Your task to perform on an android device: Open Google Maps and go to "Timeline" Image 0: 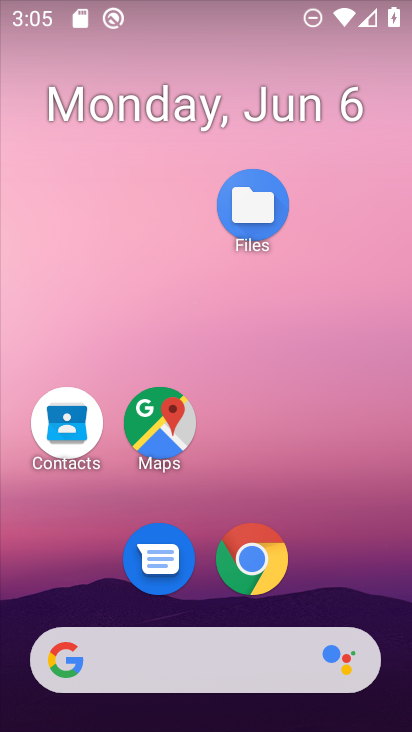
Step 0: drag from (187, 644) to (185, 54)
Your task to perform on an android device: Open Google Maps and go to "Timeline" Image 1: 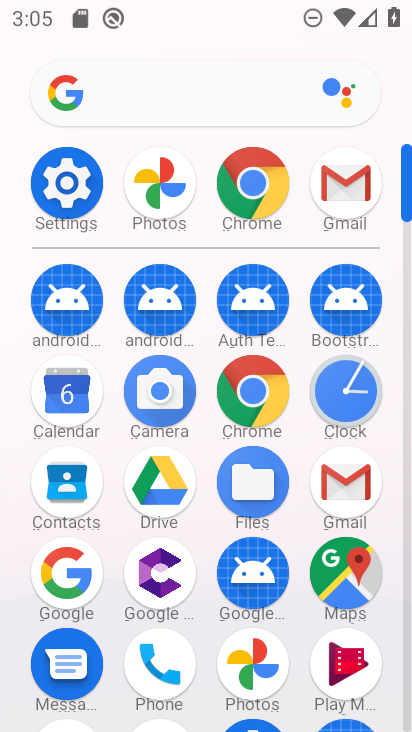
Step 1: click (334, 566)
Your task to perform on an android device: Open Google Maps and go to "Timeline" Image 2: 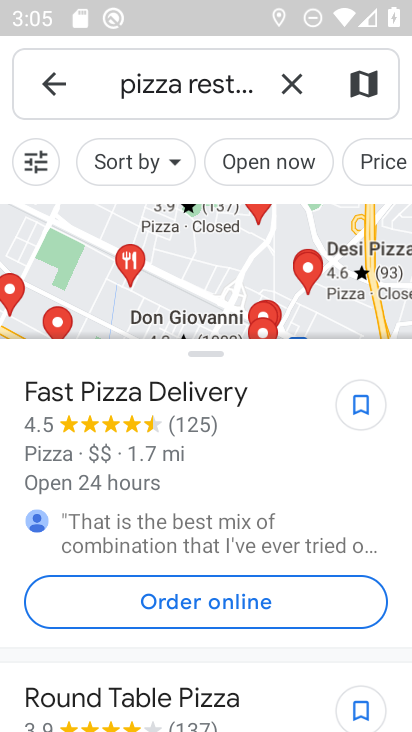
Step 2: click (42, 90)
Your task to perform on an android device: Open Google Maps and go to "Timeline" Image 3: 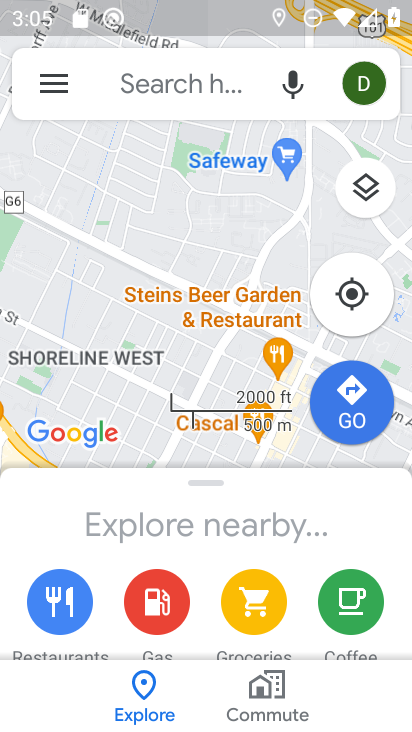
Step 3: click (62, 99)
Your task to perform on an android device: Open Google Maps and go to "Timeline" Image 4: 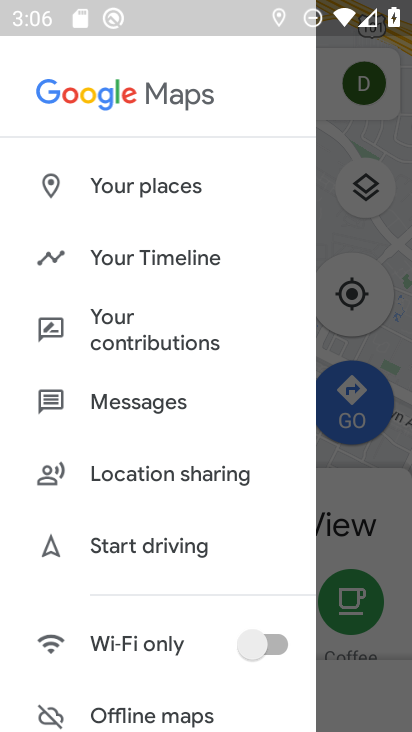
Step 4: click (104, 251)
Your task to perform on an android device: Open Google Maps and go to "Timeline" Image 5: 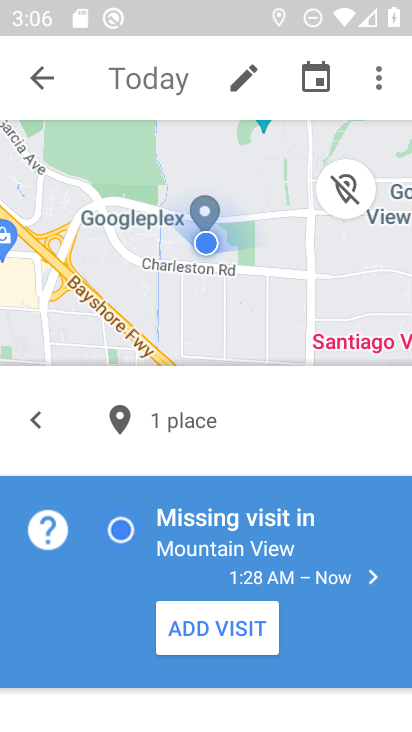
Step 5: task complete